Your task to perform on an android device: add a label to a message in the gmail app Image 0: 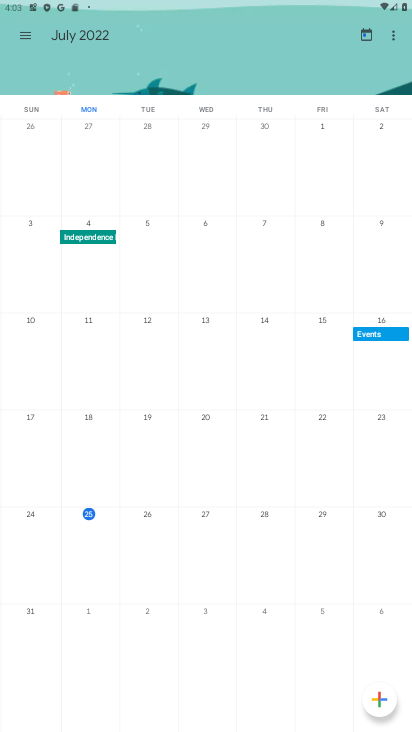
Step 0: press home button
Your task to perform on an android device: add a label to a message in the gmail app Image 1: 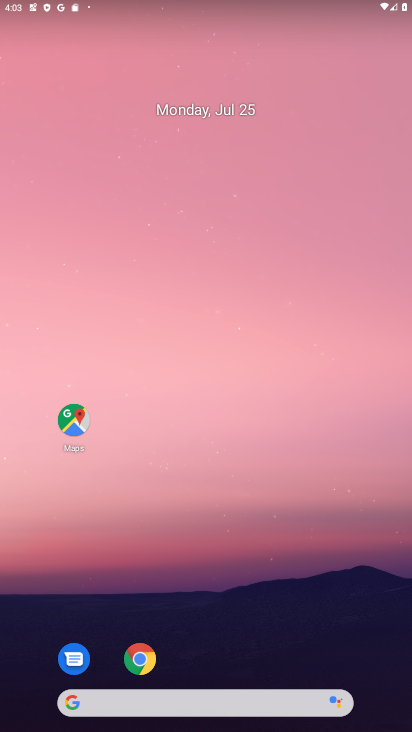
Step 1: drag from (387, 687) to (280, 64)
Your task to perform on an android device: add a label to a message in the gmail app Image 2: 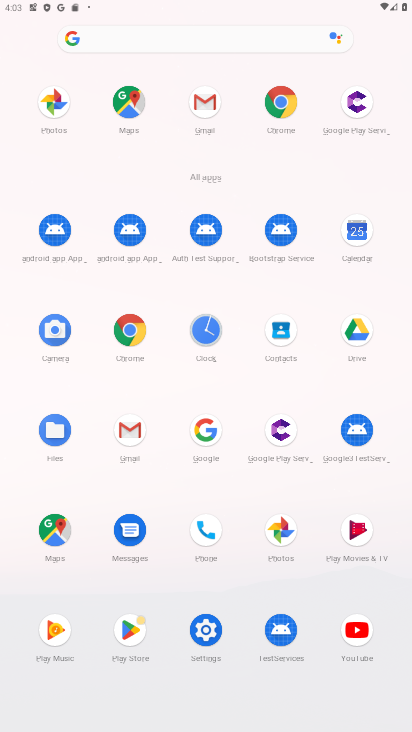
Step 2: click (128, 430)
Your task to perform on an android device: add a label to a message in the gmail app Image 3: 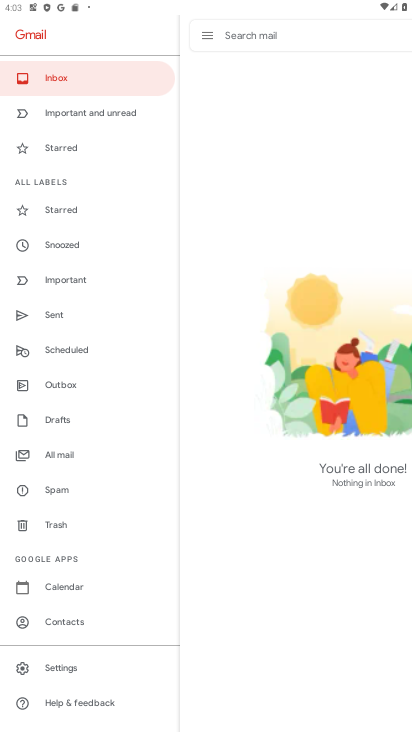
Step 3: click (66, 453)
Your task to perform on an android device: add a label to a message in the gmail app Image 4: 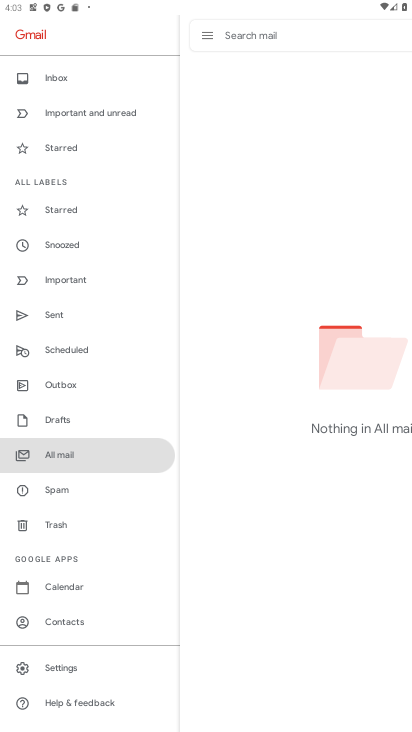
Step 4: task complete